Your task to perform on an android device: Show me the alarms in the clock app Image 0: 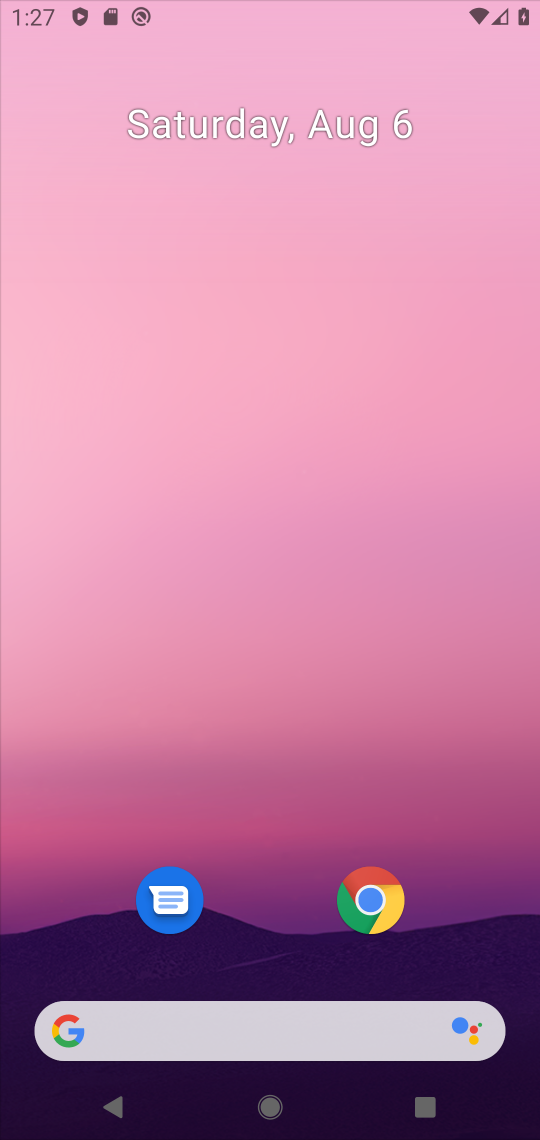
Step 0: press home button
Your task to perform on an android device: Show me the alarms in the clock app Image 1: 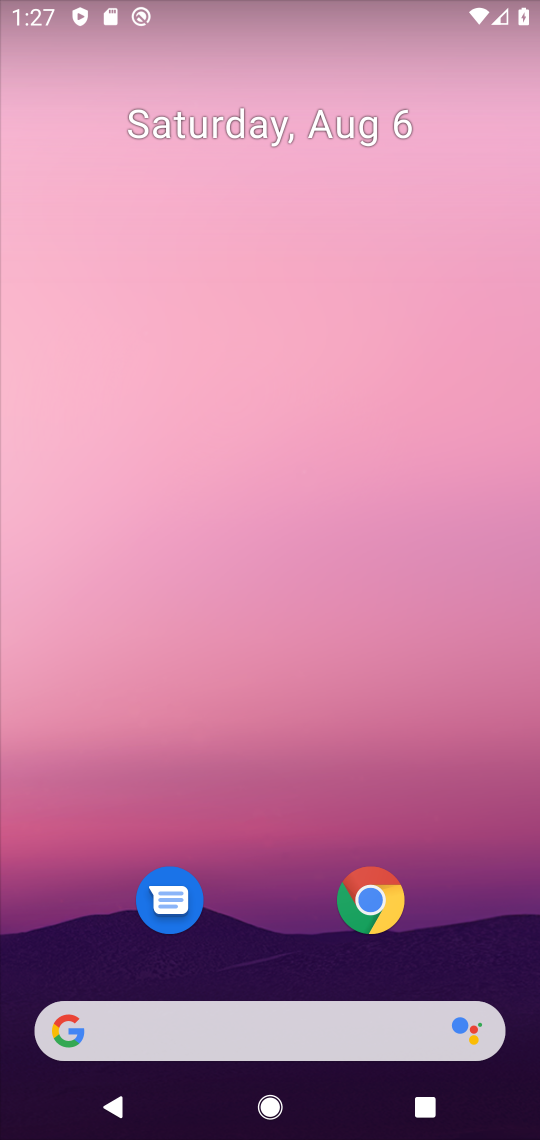
Step 1: drag from (269, 750) to (261, 230)
Your task to perform on an android device: Show me the alarms in the clock app Image 2: 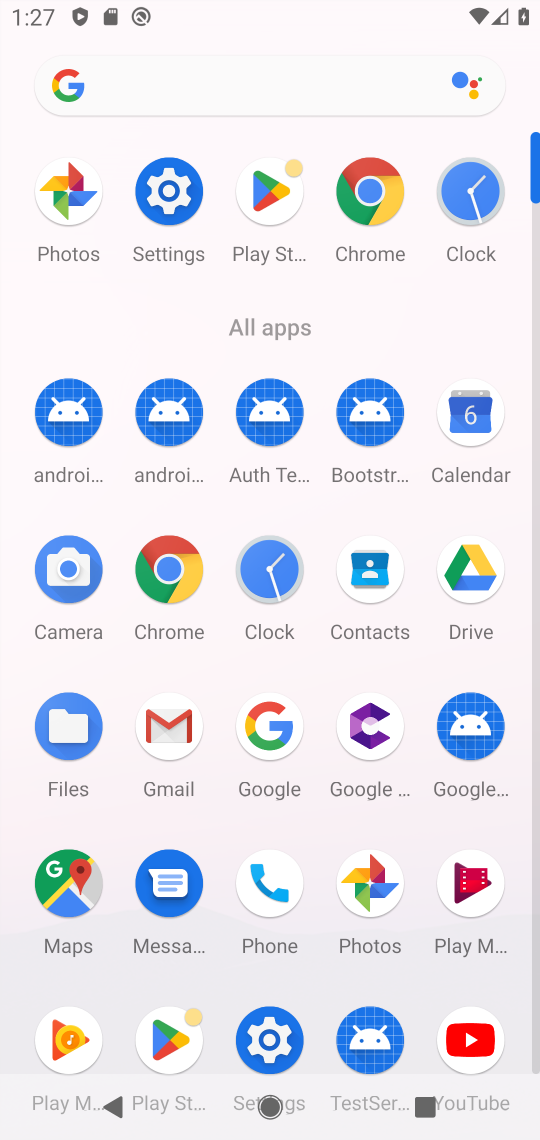
Step 2: click (270, 581)
Your task to perform on an android device: Show me the alarms in the clock app Image 3: 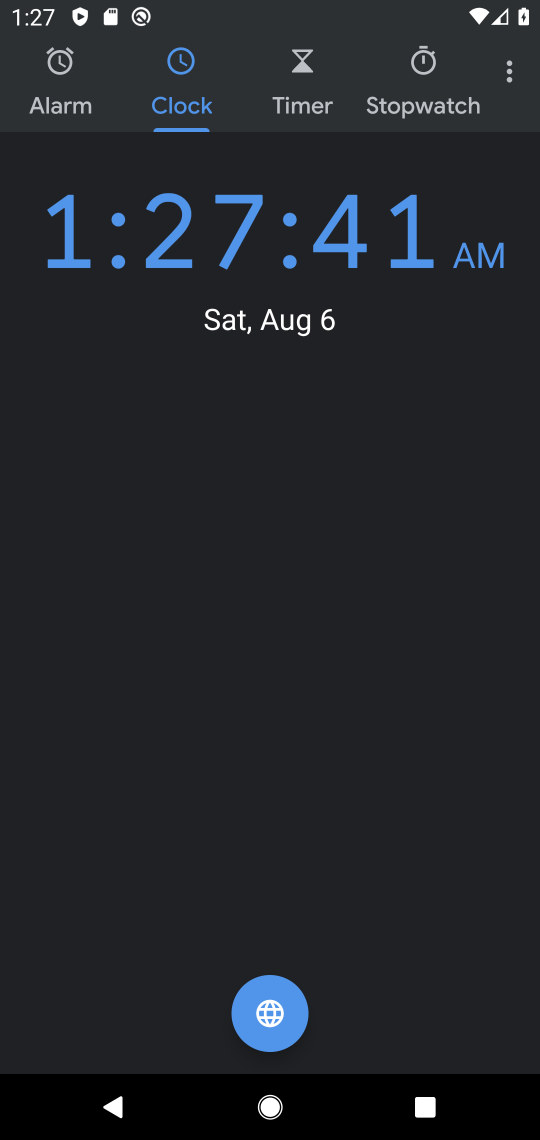
Step 3: click (73, 79)
Your task to perform on an android device: Show me the alarms in the clock app Image 4: 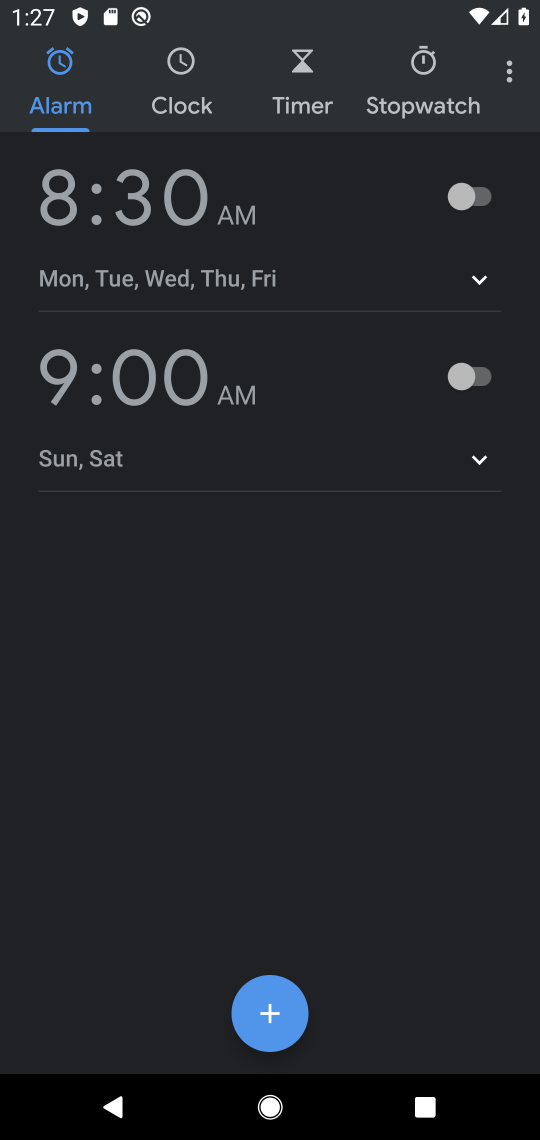
Step 4: task complete